Your task to perform on an android device: open chrome privacy settings Image 0: 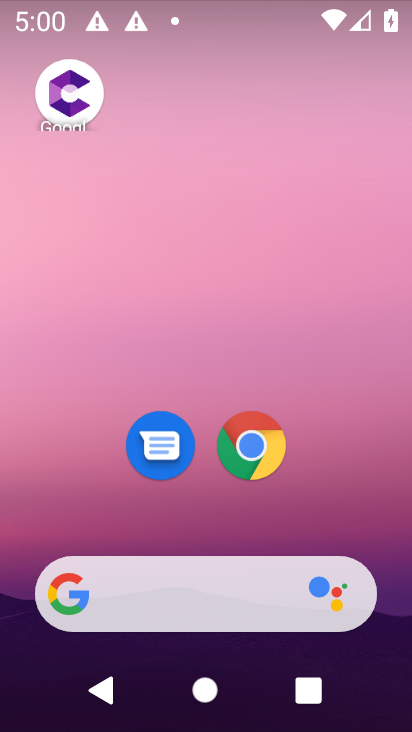
Step 0: click (254, 443)
Your task to perform on an android device: open chrome privacy settings Image 1: 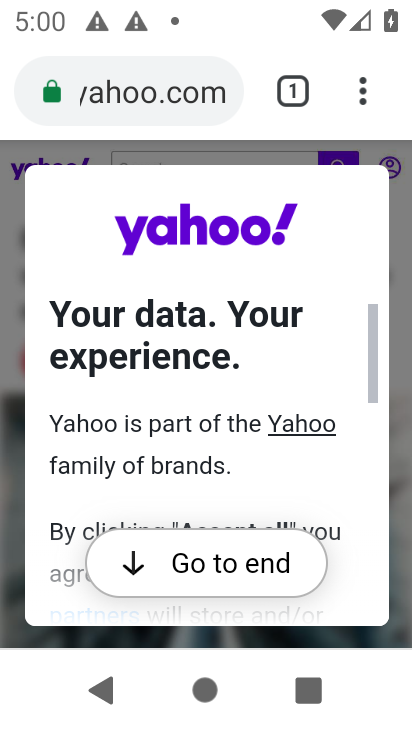
Step 1: click (363, 99)
Your task to perform on an android device: open chrome privacy settings Image 2: 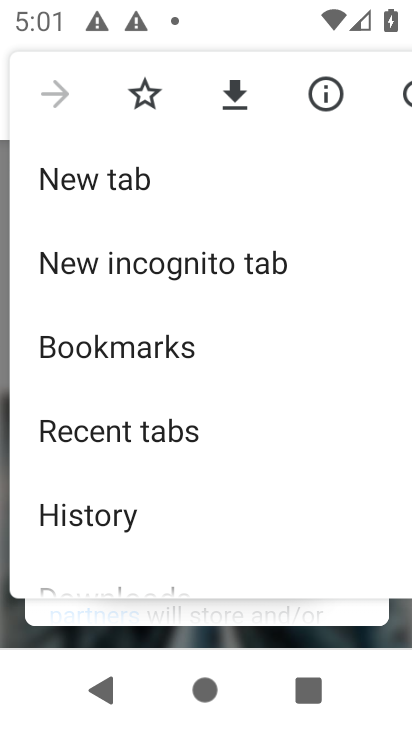
Step 2: drag from (133, 470) to (132, 265)
Your task to perform on an android device: open chrome privacy settings Image 3: 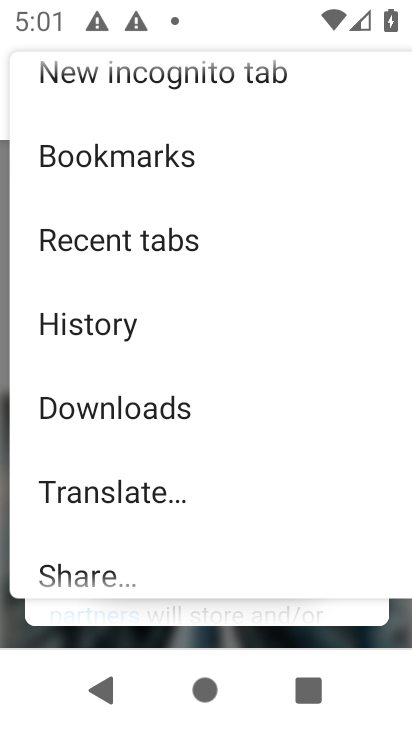
Step 3: drag from (132, 512) to (126, 276)
Your task to perform on an android device: open chrome privacy settings Image 4: 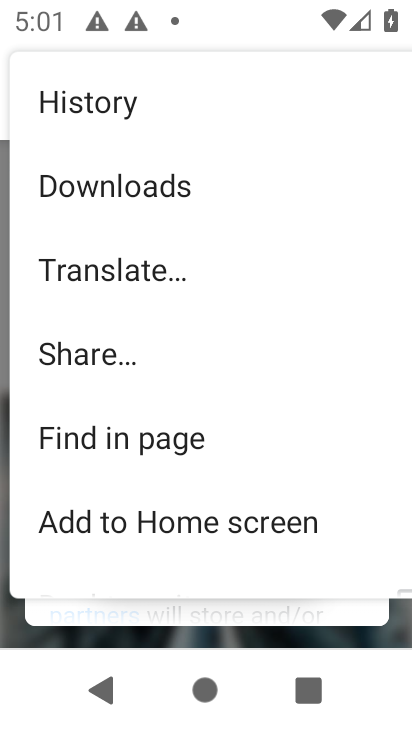
Step 4: drag from (153, 545) to (149, 355)
Your task to perform on an android device: open chrome privacy settings Image 5: 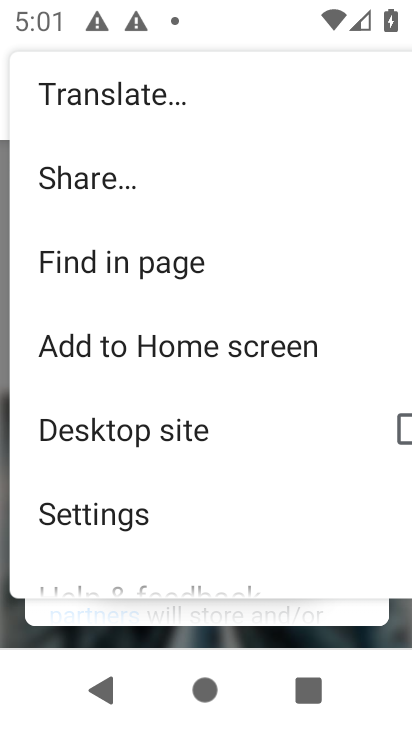
Step 5: click (119, 518)
Your task to perform on an android device: open chrome privacy settings Image 6: 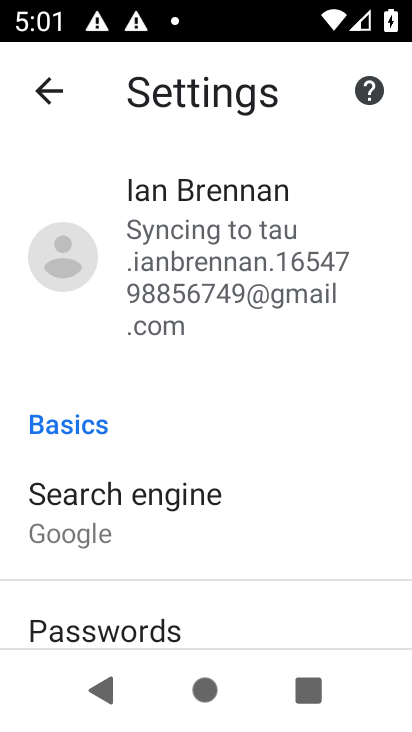
Step 6: drag from (199, 512) to (202, 271)
Your task to perform on an android device: open chrome privacy settings Image 7: 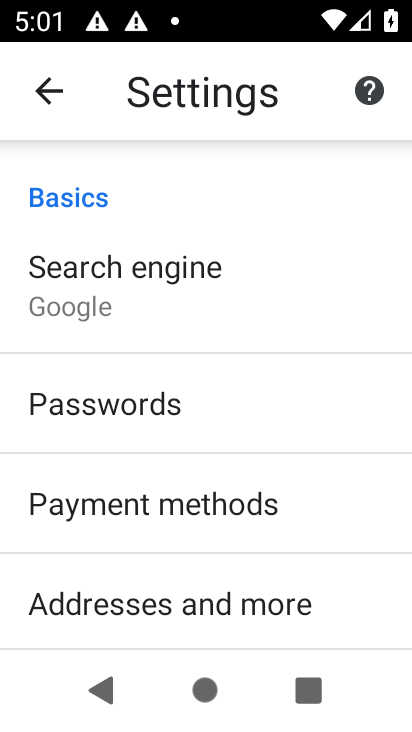
Step 7: drag from (238, 545) to (246, 331)
Your task to perform on an android device: open chrome privacy settings Image 8: 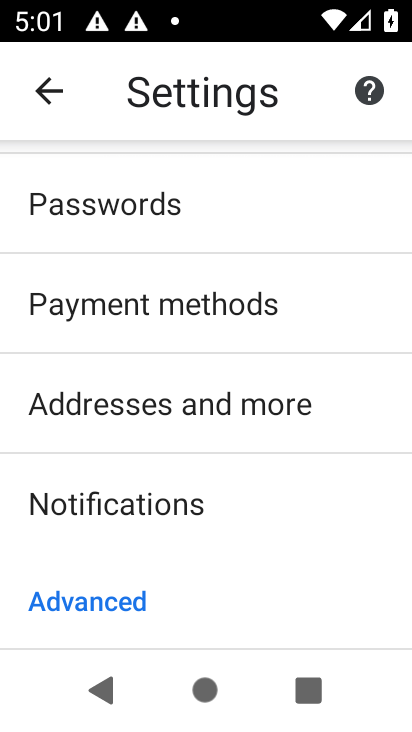
Step 8: drag from (241, 524) to (236, 317)
Your task to perform on an android device: open chrome privacy settings Image 9: 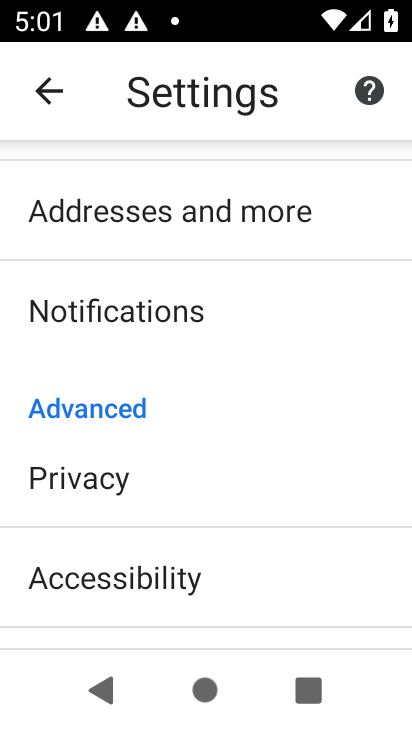
Step 9: click (78, 512)
Your task to perform on an android device: open chrome privacy settings Image 10: 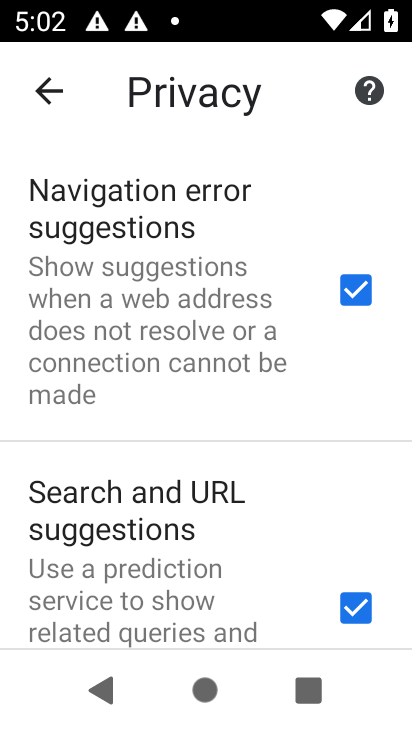
Step 10: task complete